Your task to perform on an android device: open the mobile data screen to see how much data has been used Image 0: 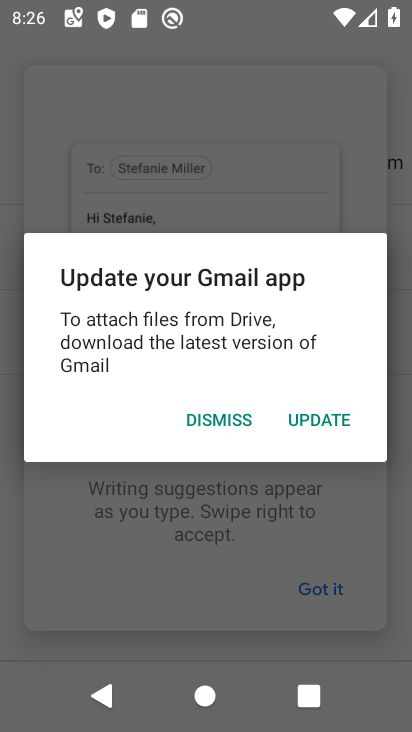
Step 0: press home button
Your task to perform on an android device: open the mobile data screen to see how much data has been used Image 1: 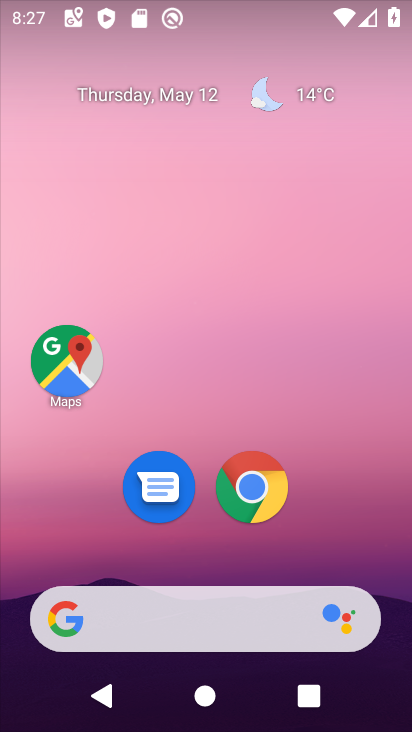
Step 1: drag from (356, 510) to (316, 1)
Your task to perform on an android device: open the mobile data screen to see how much data has been used Image 2: 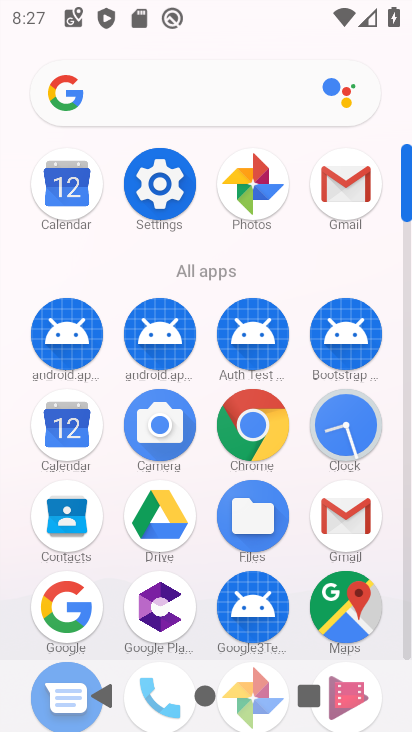
Step 2: click (159, 189)
Your task to perform on an android device: open the mobile data screen to see how much data has been used Image 3: 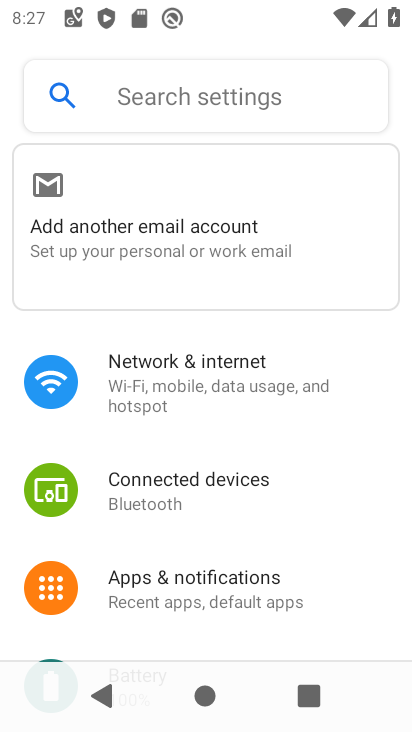
Step 3: click (169, 385)
Your task to perform on an android device: open the mobile data screen to see how much data has been used Image 4: 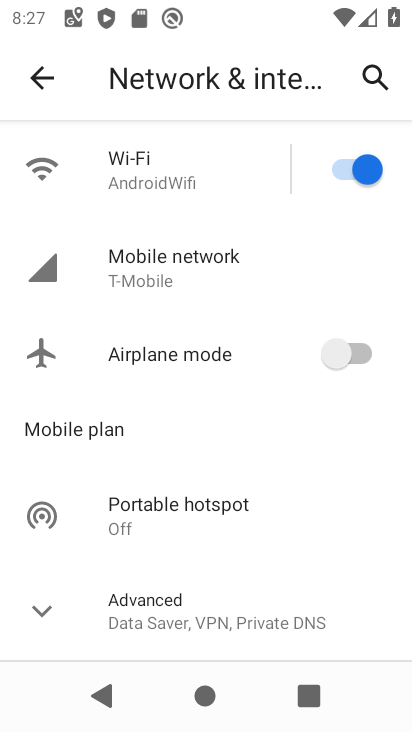
Step 4: click (146, 283)
Your task to perform on an android device: open the mobile data screen to see how much data has been used Image 5: 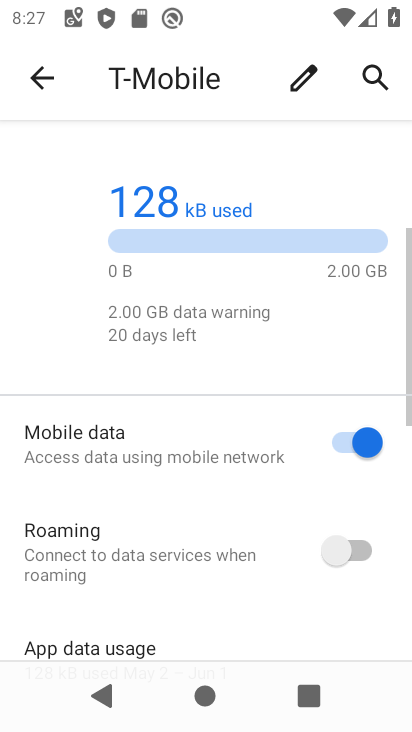
Step 5: drag from (147, 573) to (151, 231)
Your task to perform on an android device: open the mobile data screen to see how much data has been used Image 6: 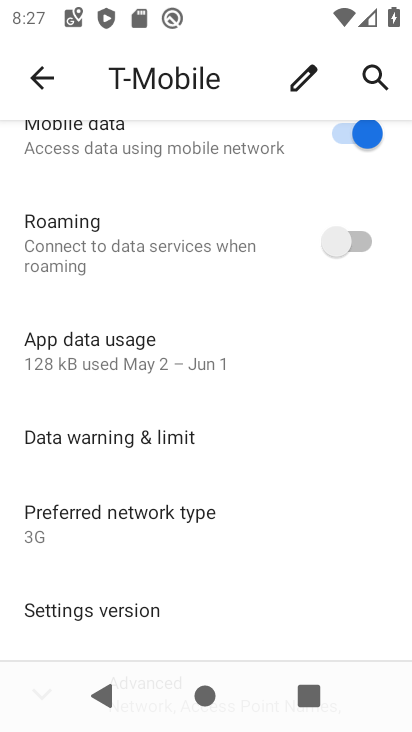
Step 6: click (121, 356)
Your task to perform on an android device: open the mobile data screen to see how much data has been used Image 7: 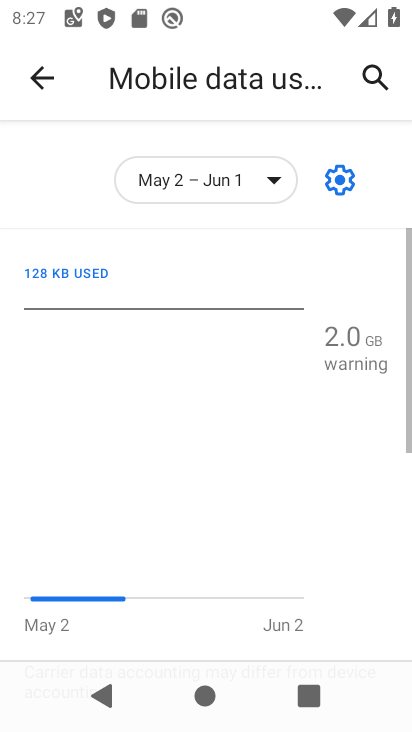
Step 7: task complete